Your task to perform on an android device: turn off sleep mode Image 0: 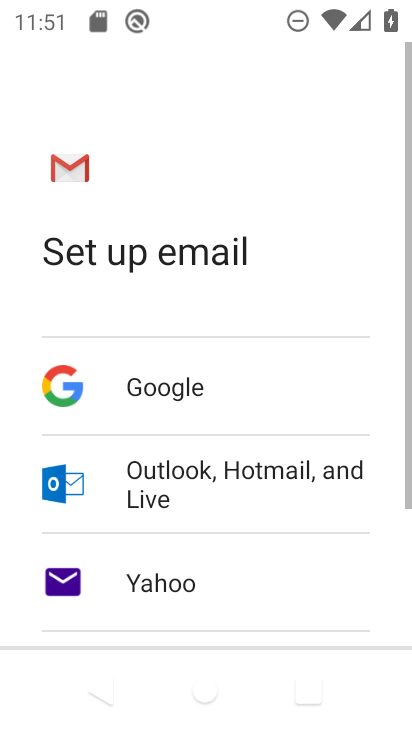
Step 0: press home button
Your task to perform on an android device: turn off sleep mode Image 1: 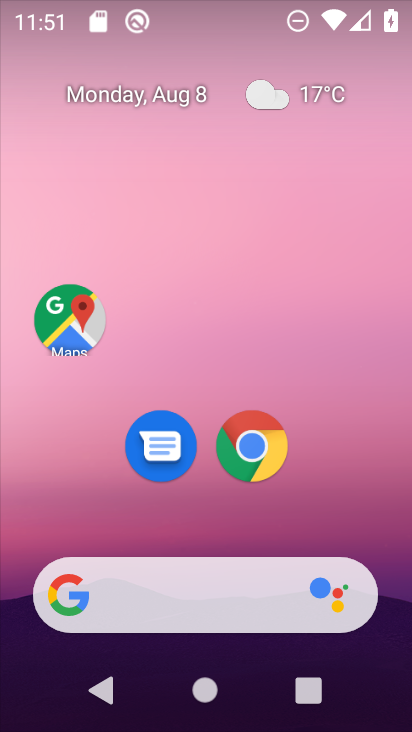
Step 1: drag from (399, 623) to (320, 114)
Your task to perform on an android device: turn off sleep mode Image 2: 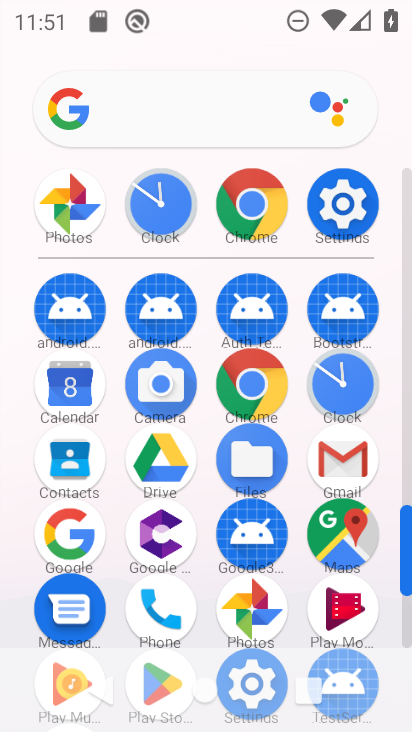
Step 2: click (409, 625)
Your task to perform on an android device: turn off sleep mode Image 3: 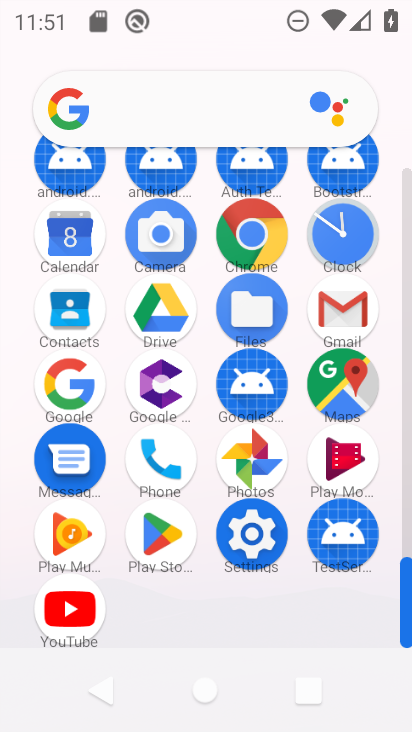
Step 3: click (253, 529)
Your task to perform on an android device: turn off sleep mode Image 4: 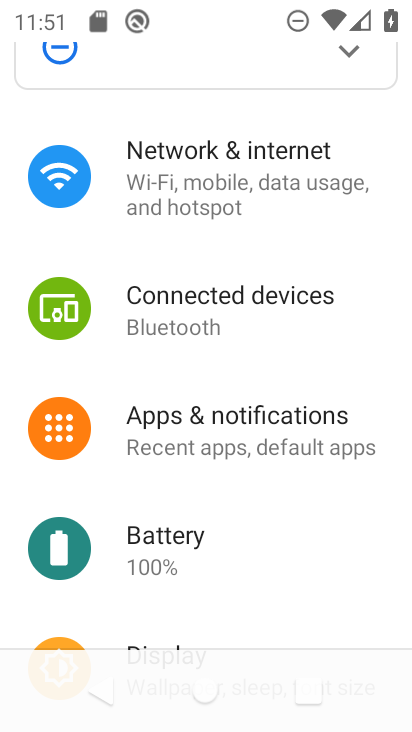
Step 4: drag from (250, 571) to (282, 183)
Your task to perform on an android device: turn off sleep mode Image 5: 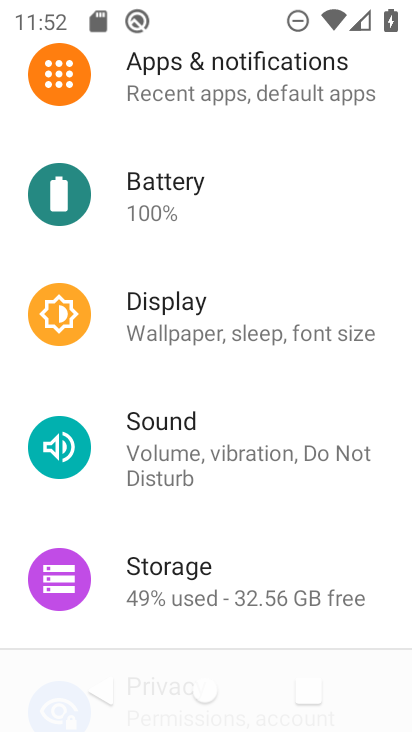
Step 5: click (172, 317)
Your task to perform on an android device: turn off sleep mode Image 6: 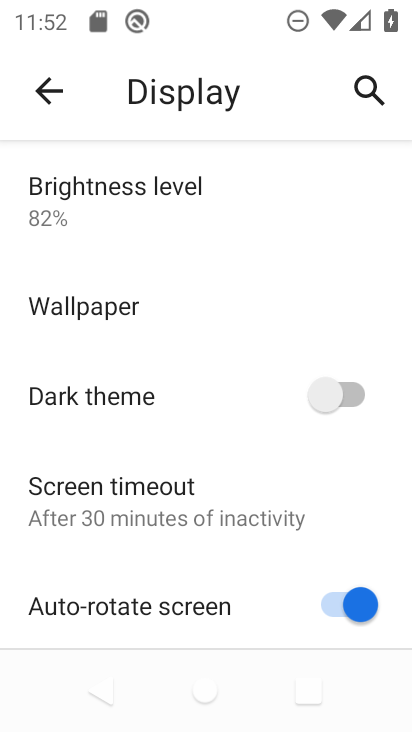
Step 6: drag from (224, 511) to (249, 128)
Your task to perform on an android device: turn off sleep mode Image 7: 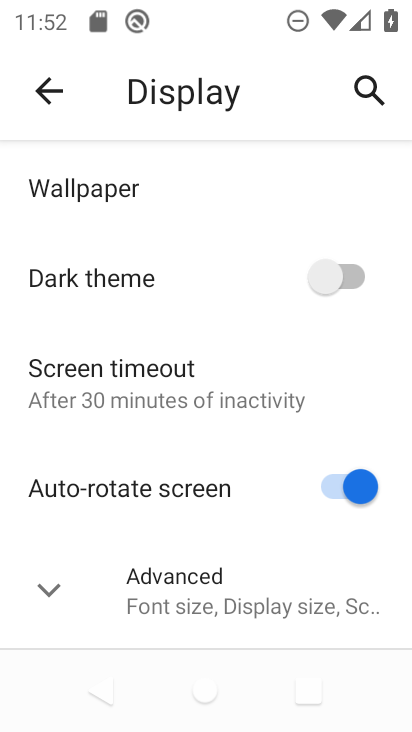
Step 7: click (43, 589)
Your task to perform on an android device: turn off sleep mode Image 8: 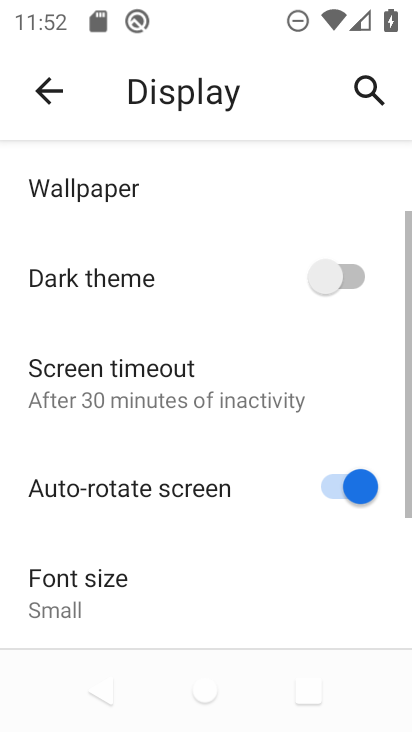
Step 8: task complete